Your task to perform on an android device: see tabs open on other devices in the chrome app Image 0: 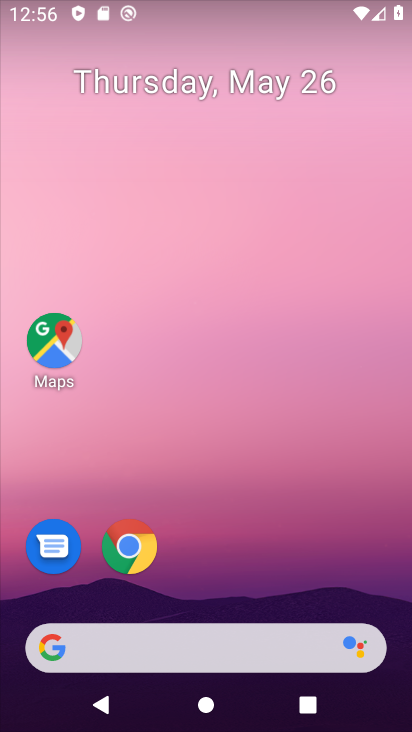
Step 0: drag from (255, 345) to (183, 49)
Your task to perform on an android device: see tabs open on other devices in the chrome app Image 1: 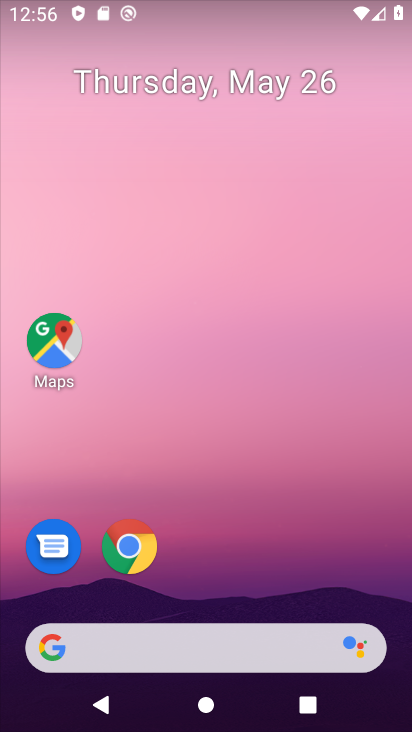
Step 1: click (137, 560)
Your task to perform on an android device: see tabs open on other devices in the chrome app Image 2: 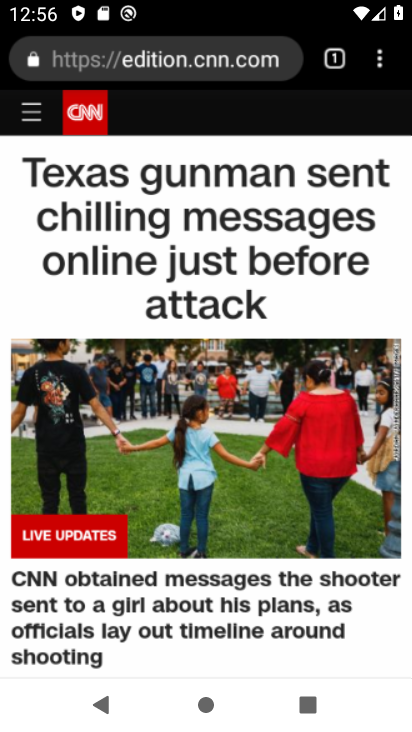
Step 2: click (371, 50)
Your task to perform on an android device: see tabs open on other devices in the chrome app Image 3: 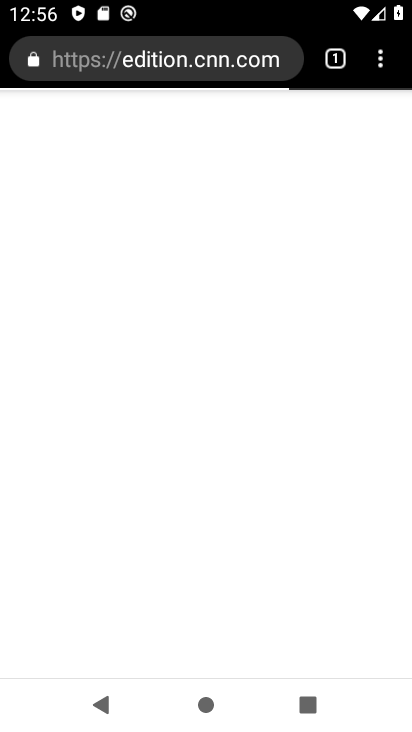
Step 3: click (377, 55)
Your task to perform on an android device: see tabs open on other devices in the chrome app Image 4: 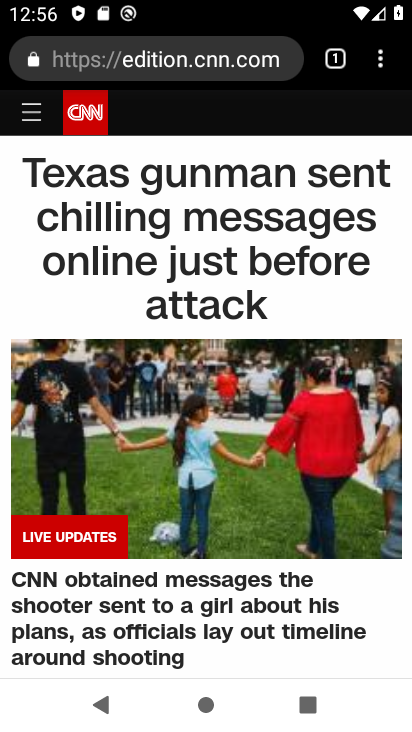
Step 4: click (383, 52)
Your task to perform on an android device: see tabs open on other devices in the chrome app Image 5: 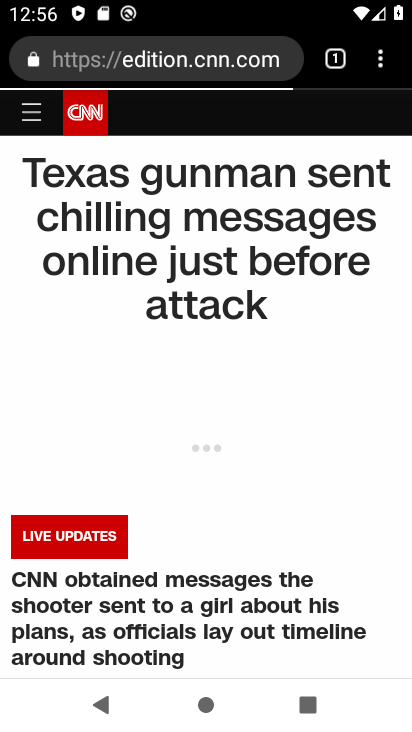
Step 5: click (377, 54)
Your task to perform on an android device: see tabs open on other devices in the chrome app Image 6: 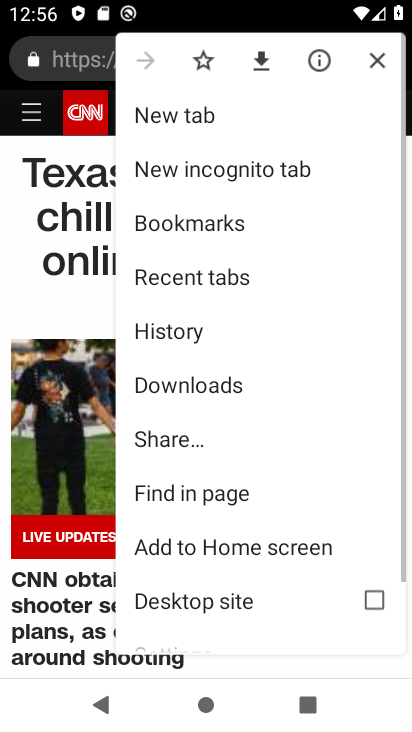
Step 6: click (250, 272)
Your task to perform on an android device: see tabs open on other devices in the chrome app Image 7: 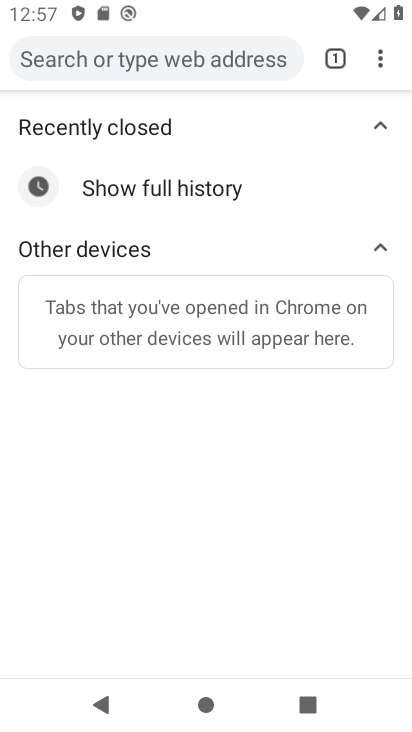
Step 7: task complete